Your task to perform on an android device: set default search engine in the chrome app Image 0: 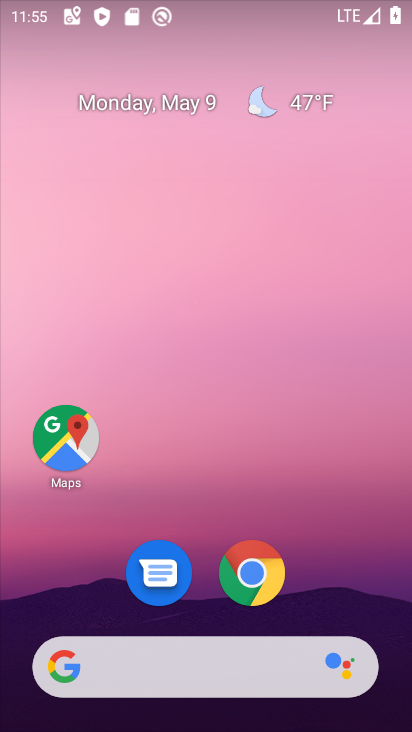
Step 0: click (246, 572)
Your task to perform on an android device: set default search engine in the chrome app Image 1: 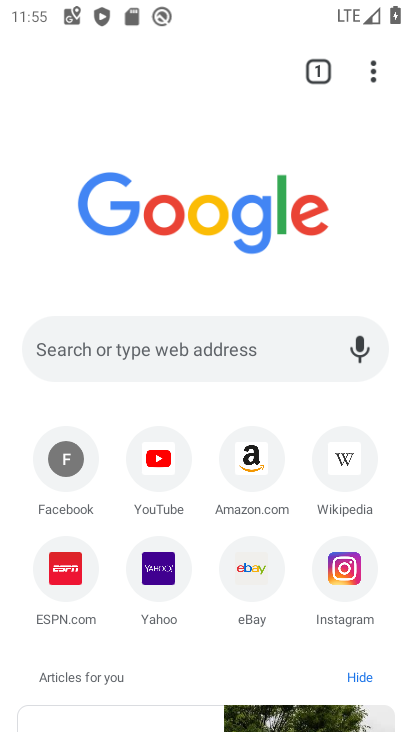
Step 1: click (363, 75)
Your task to perform on an android device: set default search engine in the chrome app Image 2: 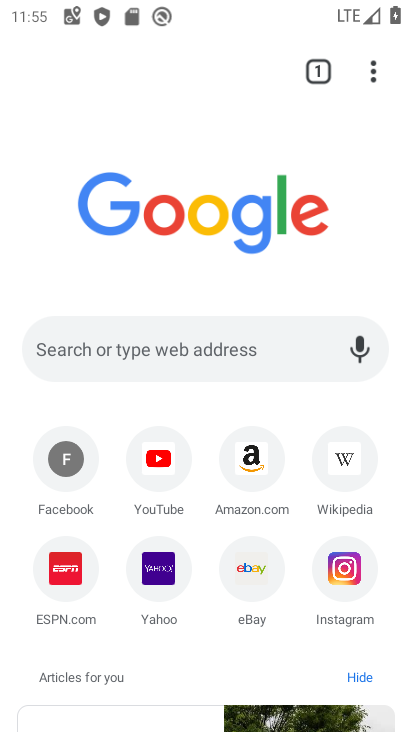
Step 2: click (363, 75)
Your task to perform on an android device: set default search engine in the chrome app Image 3: 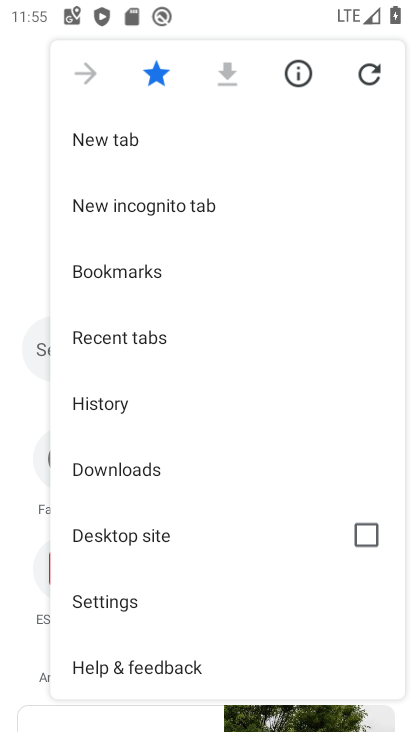
Step 3: click (135, 604)
Your task to perform on an android device: set default search engine in the chrome app Image 4: 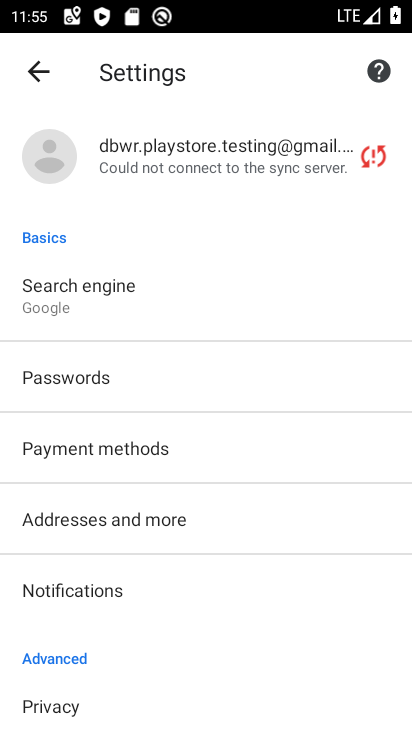
Step 4: click (128, 300)
Your task to perform on an android device: set default search engine in the chrome app Image 5: 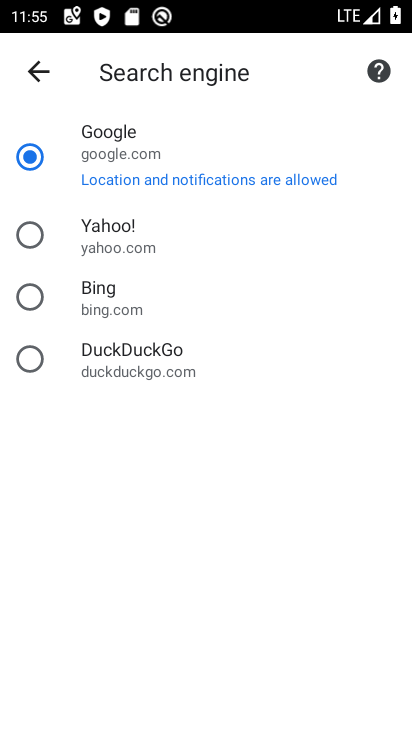
Step 5: task complete